Your task to perform on an android device: set the timer Image 0: 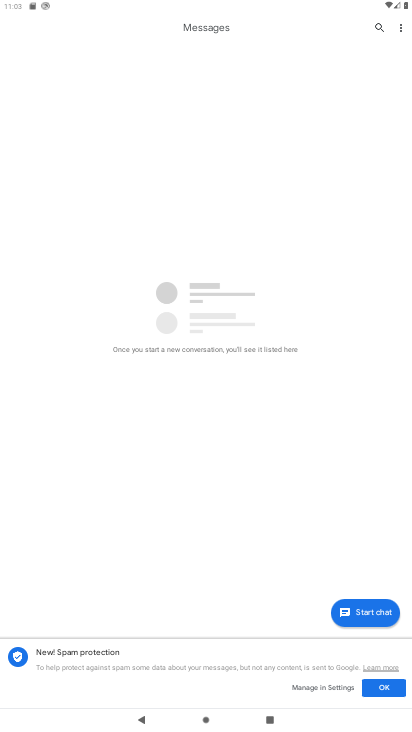
Step 0: press home button
Your task to perform on an android device: set the timer Image 1: 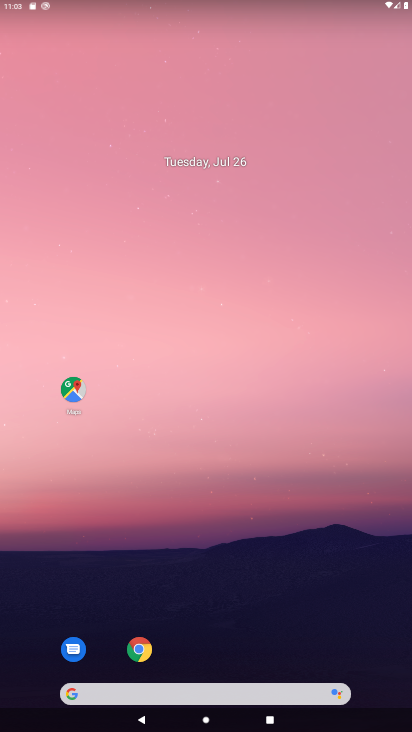
Step 1: drag from (194, 617) to (242, 0)
Your task to perform on an android device: set the timer Image 2: 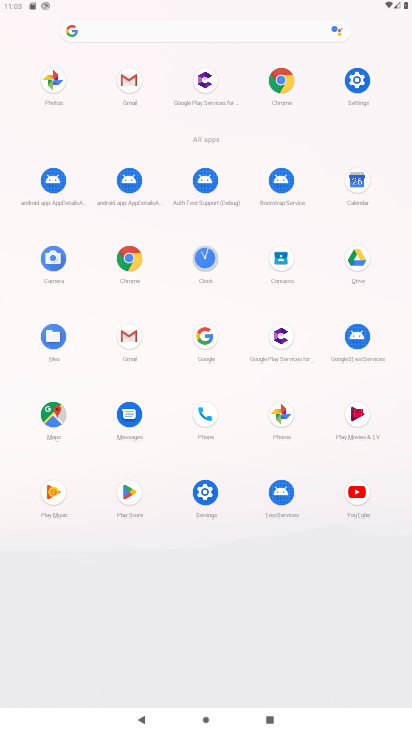
Step 2: click (210, 259)
Your task to perform on an android device: set the timer Image 3: 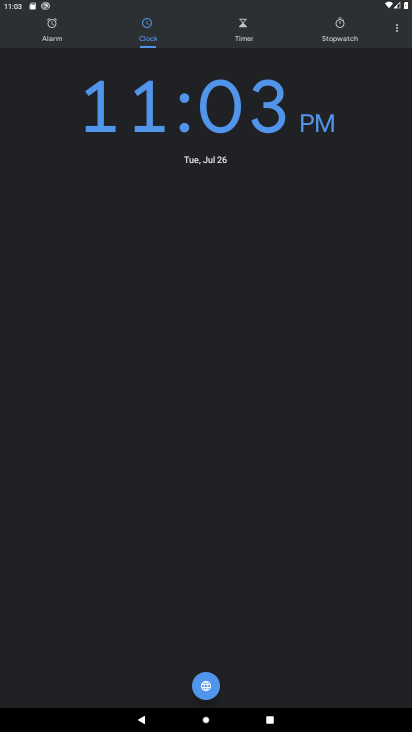
Step 3: click (248, 26)
Your task to perform on an android device: set the timer Image 4: 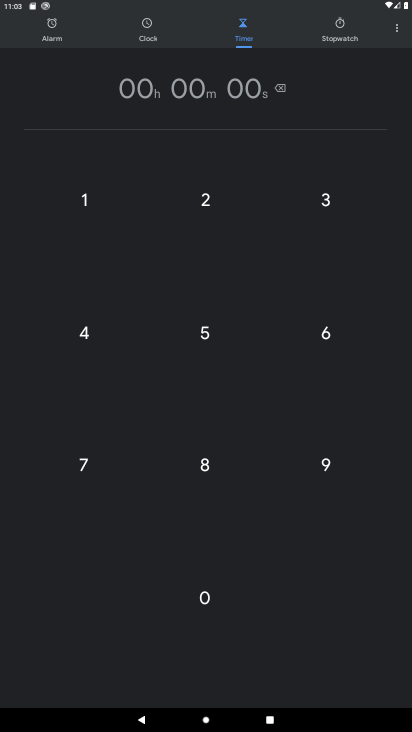
Step 4: click (99, 477)
Your task to perform on an android device: set the timer Image 5: 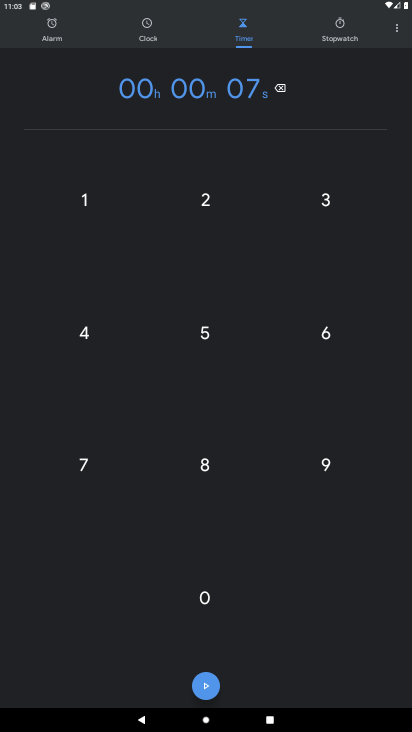
Step 5: click (206, 332)
Your task to perform on an android device: set the timer Image 6: 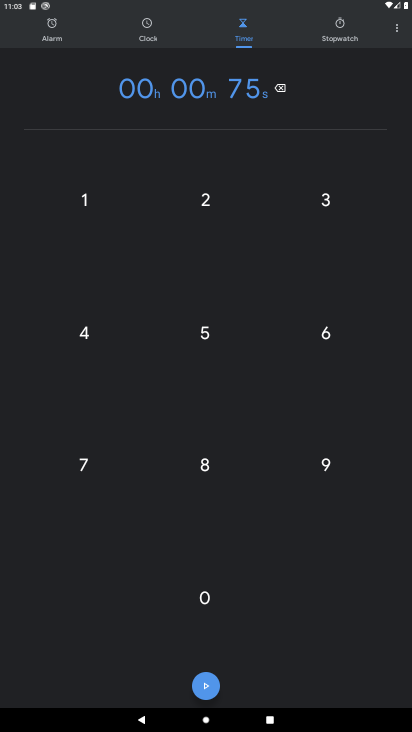
Step 6: click (313, 461)
Your task to perform on an android device: set the timer Image 7: 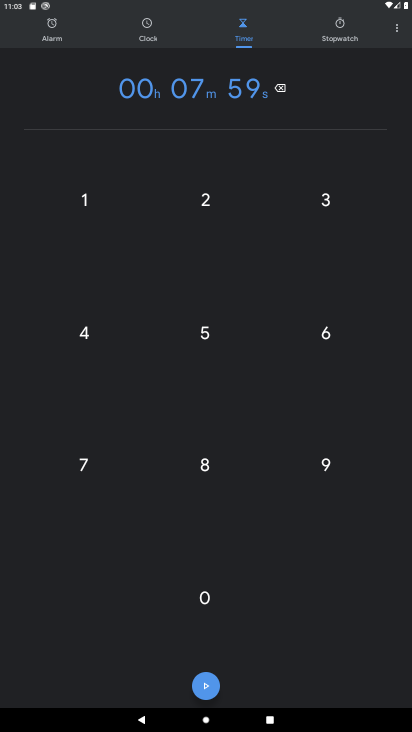
Step 7: click (204, 686)
Your task to perform on an android device: set the timer Image 8: 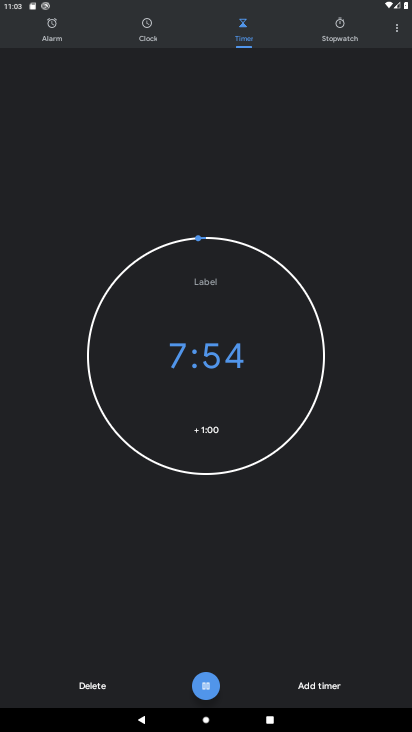
Step 8: task complete